Your task to perform on an android device: change keyboard looks Image 0: 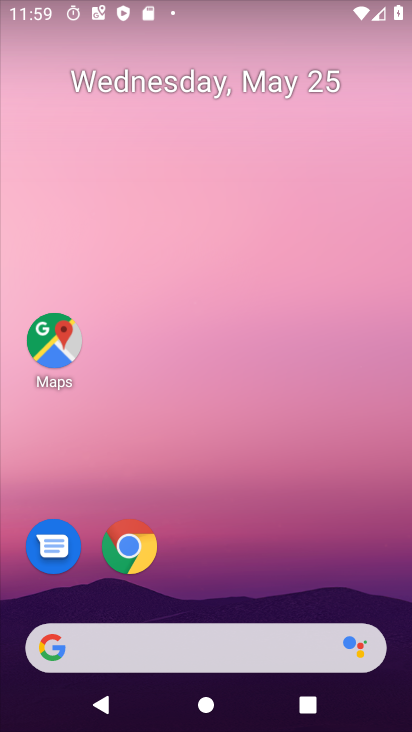
Step 0: drag from (241, 582) to (241, 28)
Your task to perform on an android device: change keyboard looks Image 1: 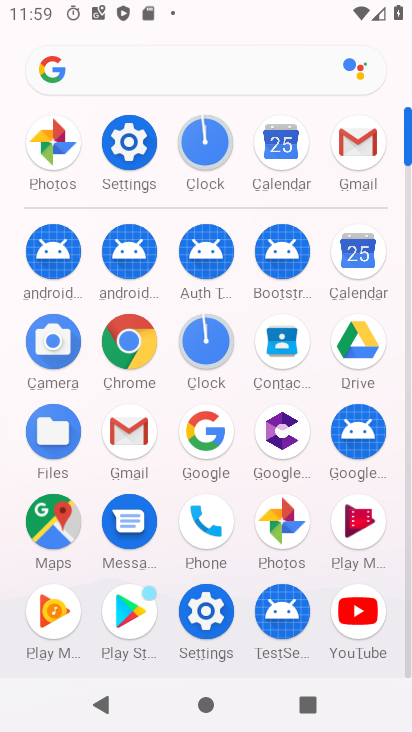
Step 1: click (132, 138)
Your task to perform on an android device: change keyboard looks Image 2: 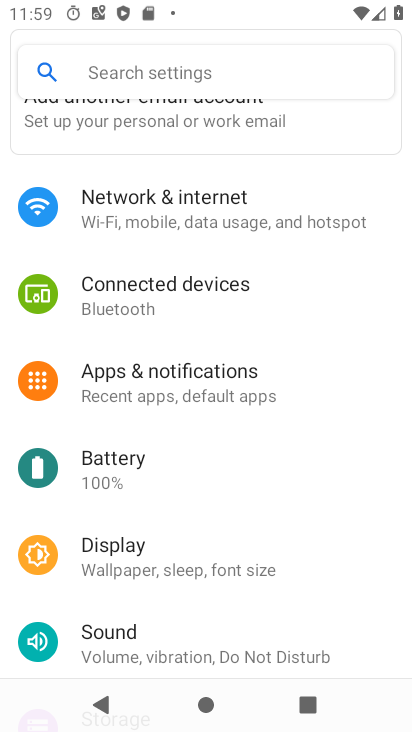
Step 2: drag from (156, 576) to (193, 219)
Your task to perform on an android device: change keyboard looks Image 3: 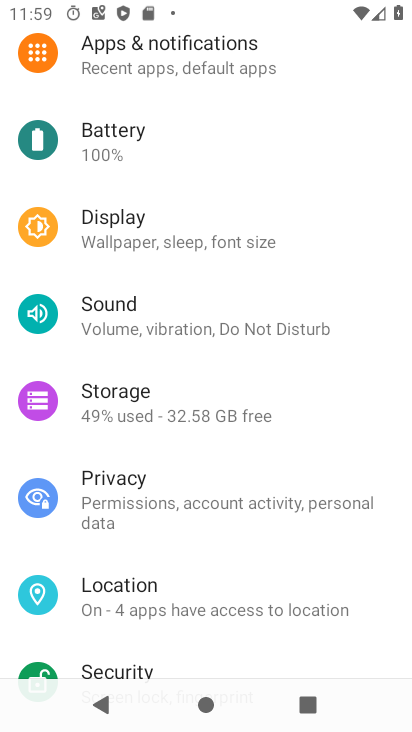
Step 3: drag from (201, 529) to (284, 0)
Your task to perform on an android device: change keyboard looks Image 4: 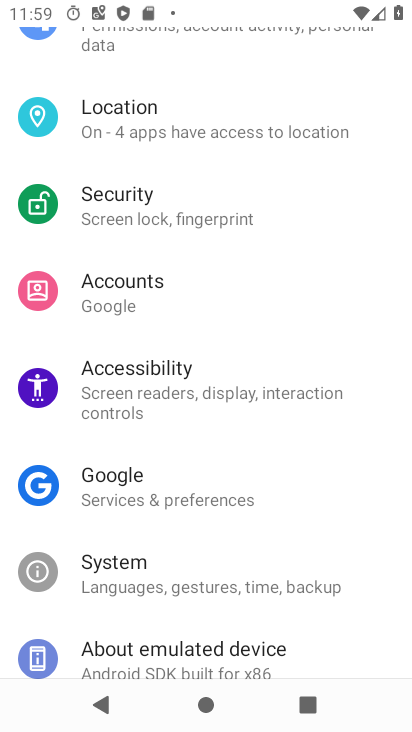
Step 4: click (155, 584)
Your task to perform on an android device: change keyboard looks Image 5: 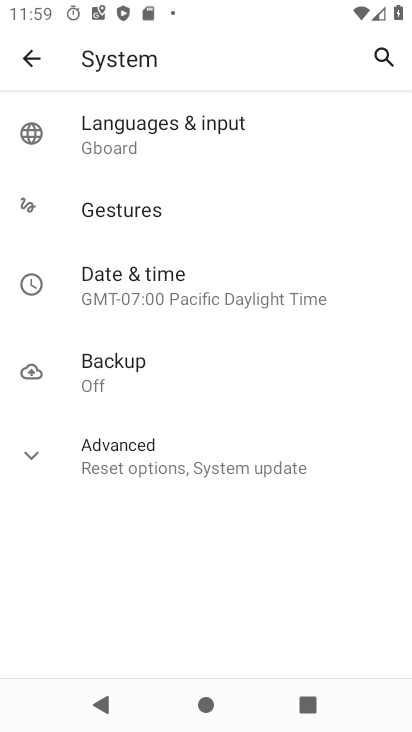
Step 5: click (121, 130)
Your task to perform on an android device: change keyboard looks Image 6: 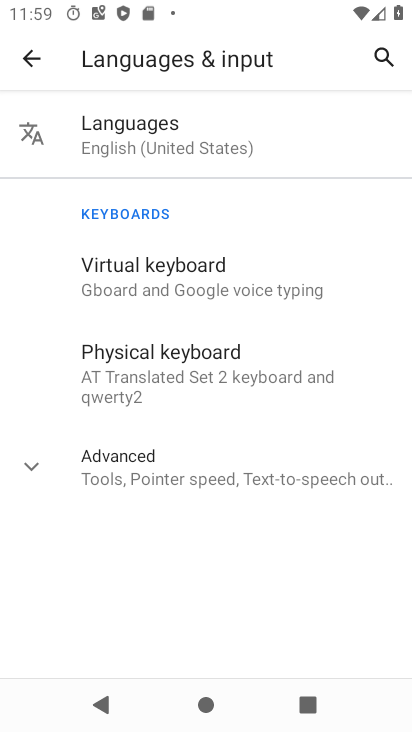
Step 6: click (125, 271)
Your task to perform on an android device: change keyboard looks Image 7: 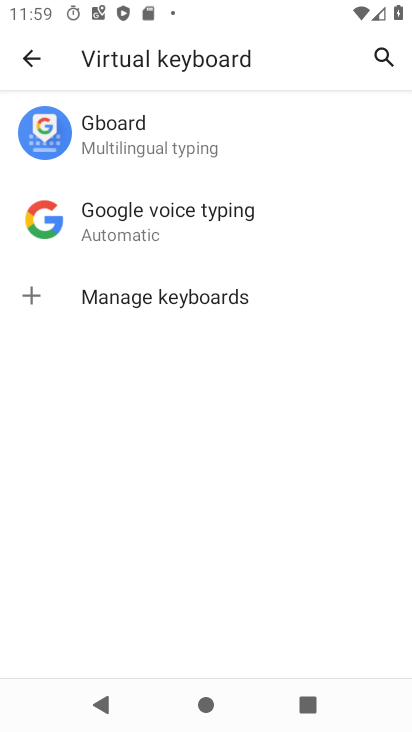
Step 7: click (156, 136)
Your task to perform on an android device: change keyboard looks Image 8: 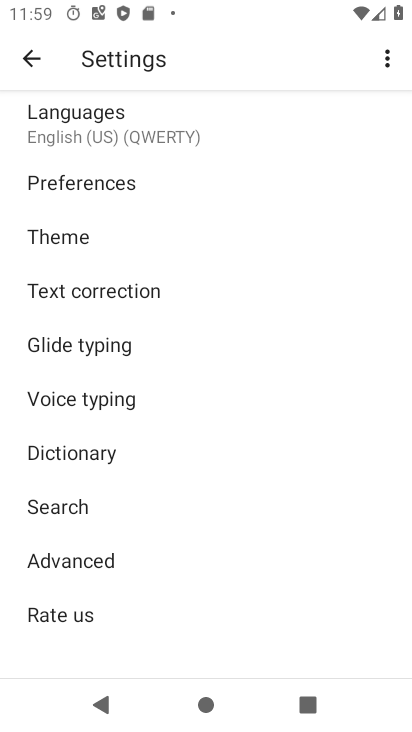
Step 8: click (63, 225)
Your task to perform on an android device: change keyboard looks Image 9: 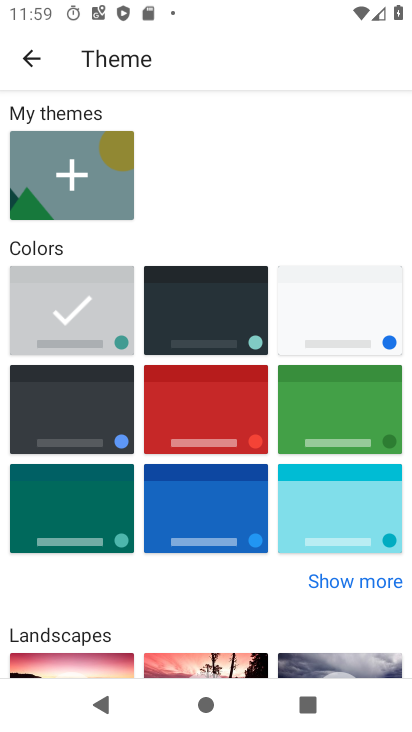
Step 9: click (161, 458)
Your task to perform on an android device: change keyboard looks Image 10: 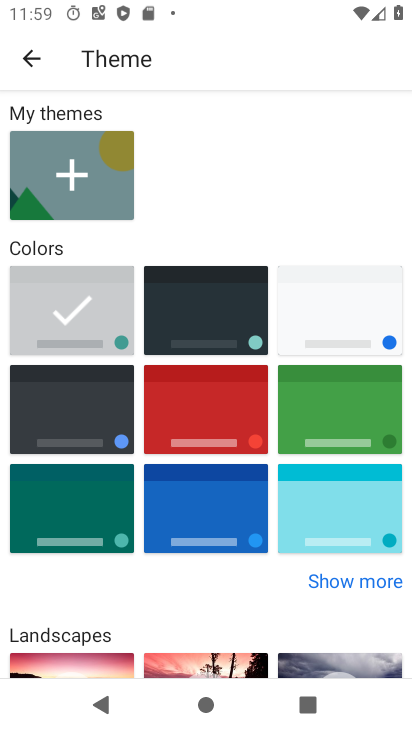
Step 10: click (196, 513)
Your task to perform on an android device: change keyboard looks Image 11: 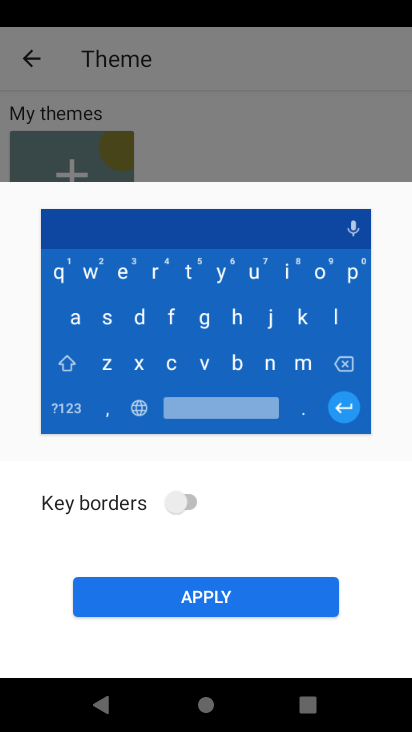
Step 11: click (230, 593)
Your task to perform on an android device: change keyboard looks Image 12: 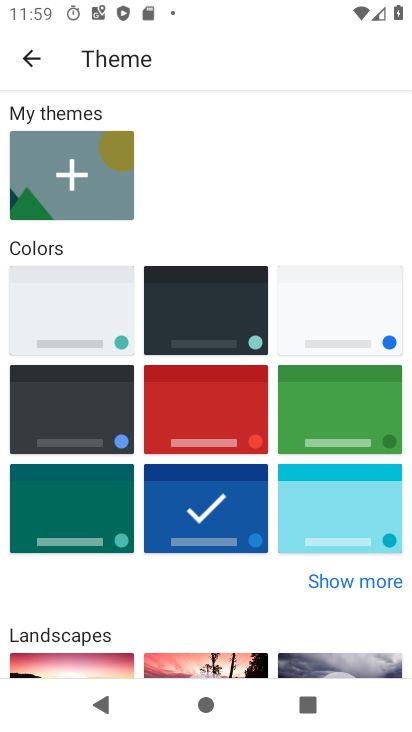
Step 12: task complete